Your task to perform on an android device: Go to calendar. Show me events next week Image 0: 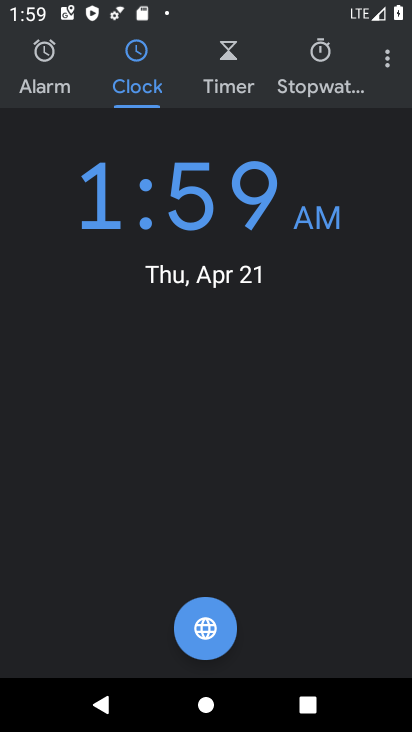
Step 0: press home button
Your task to perform on an android device: Go to calendar. Show me events next week Image 1: 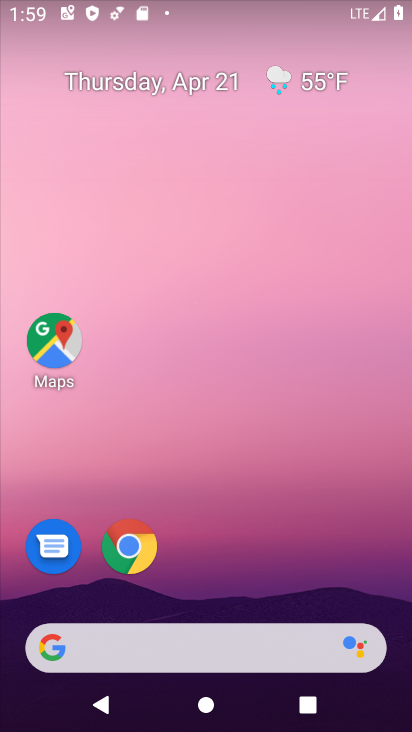
Step 1: click (166, 86)
Your task to perform on an android device: Go to calendar. Show me events next week Image 2: 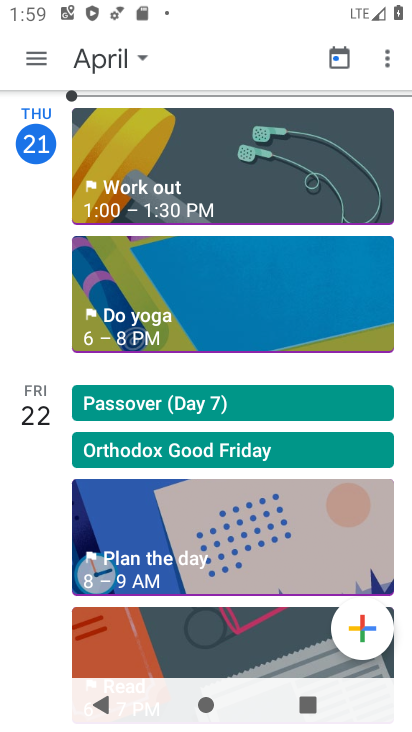
Step 2: task complete